Your task to perform on an android device: Open my contact list Image 0: 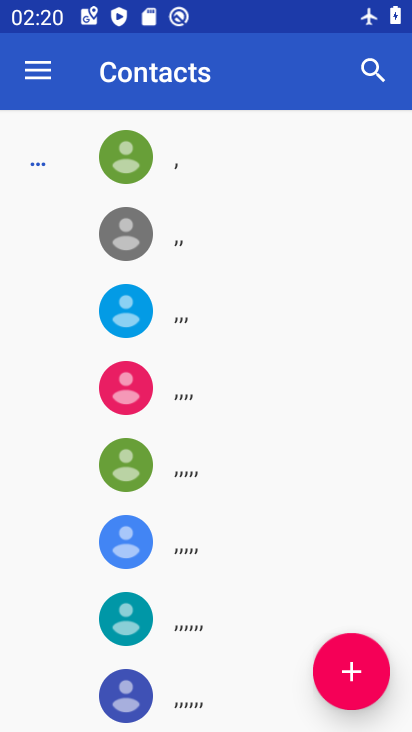
Step 0: drag from (301, 588) to (231, 203)
Your task to perform on an android device: Open my contact list Image 1: 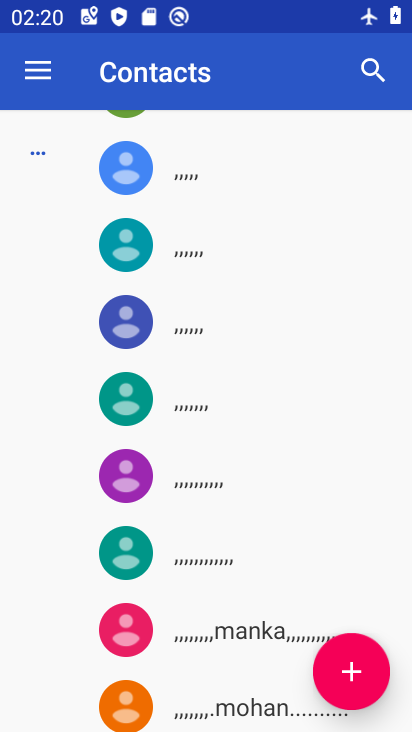
Step 1: task complete